Your task to perform on an android device: open the mobile data screen to see how much data has been used Image 0: 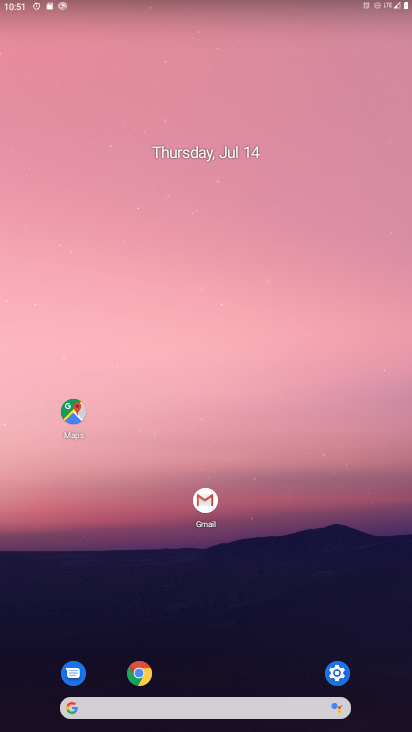
Step 0: click (344, 673)
Your task to perform on an android device: open the mobile data screen to see how much data has been used Image 1: 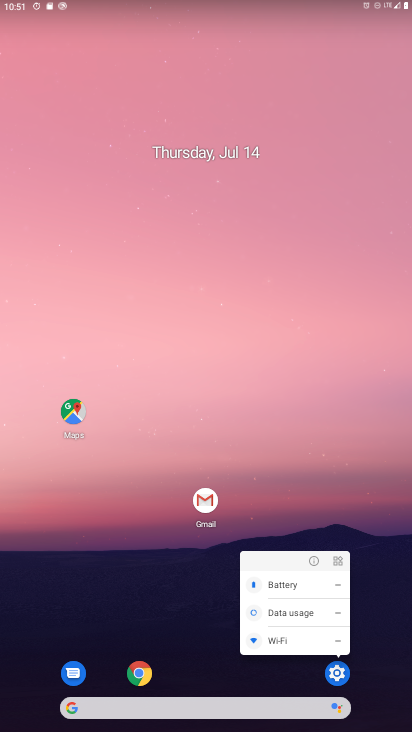
Step 1: click (339, 671)
Your task to perform on an android device: open the mobile data screen to see how much data has been used Image 2: 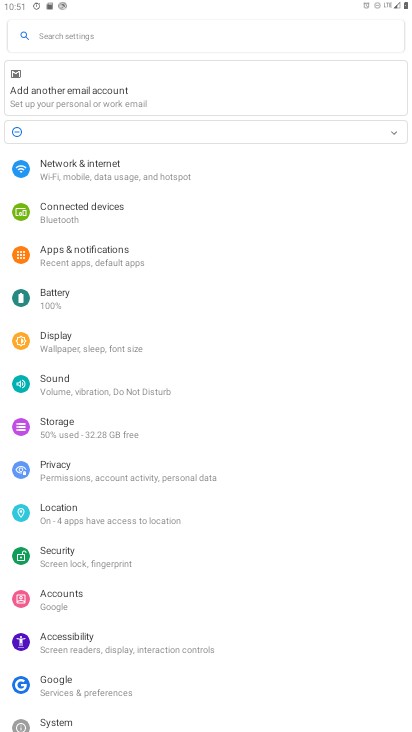
Step 2: click (109, 41)
Your task to perform on an android device: open the mobile data screen to see how much data has been used Image 3: 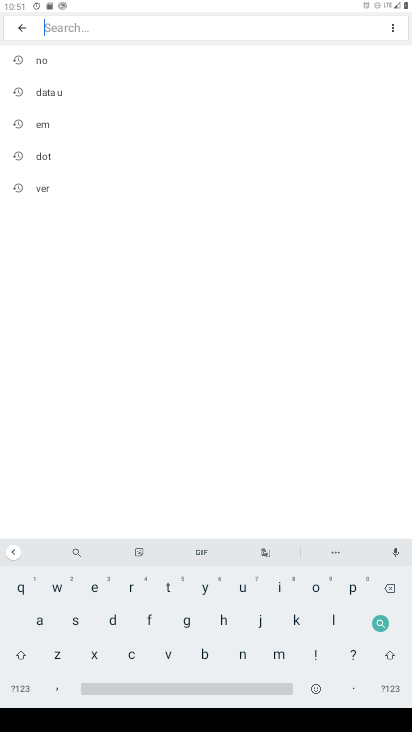
Step 3: click (64, 95)
Your task to perform on an android device: open the mobile data screen to see how much data has been used Image 4: 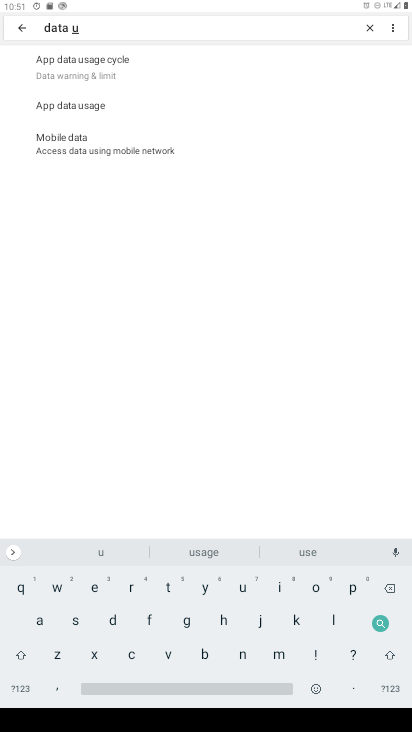
Step 4: click (92, 78)
Your task to perform on an android device: open the mobile data screen to see how much data has been used Image 5: 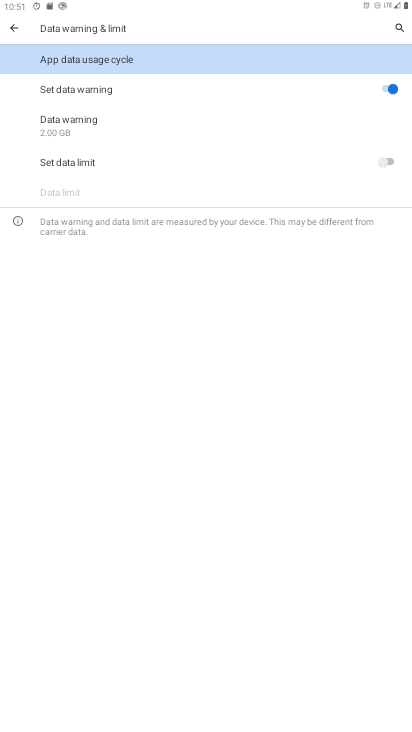
Step 5: click (104, 61)
Your task to perform on an android device: open the mobile data screen to see how much data has been used Image 6: 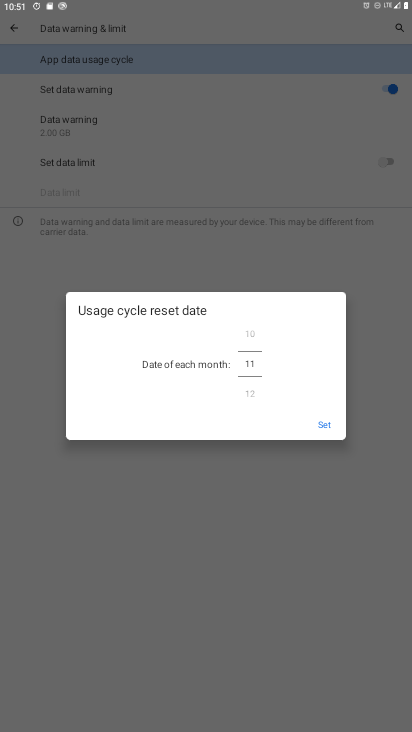
Step 6: press back button
Your task to perform on an android device: open the mobile data screen to see how much data has been used Image 7: 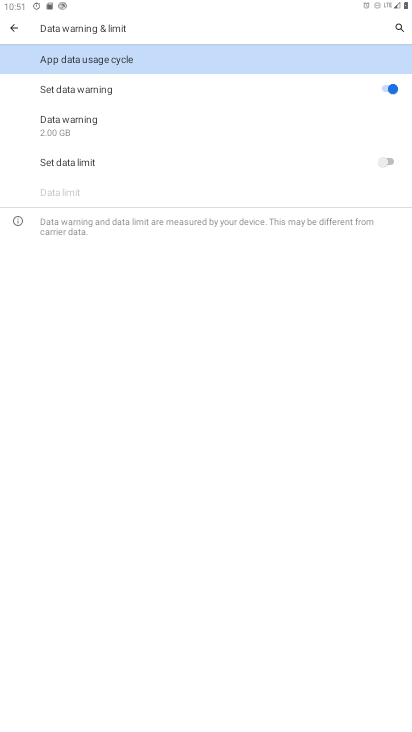
Step 7: press back button
Your task to perform on an android device: open the mobile data screen to see how much data has been used Image 8: 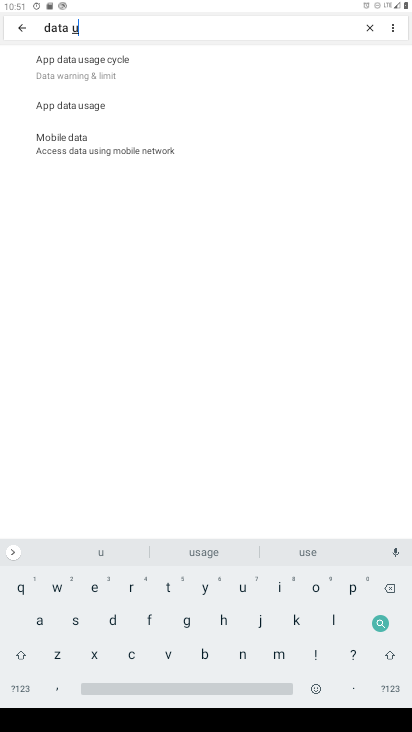
Step 8: click (93, 111)
Your task to perform on an android device: open the mobile data screen to see how much data has been used Image 9: 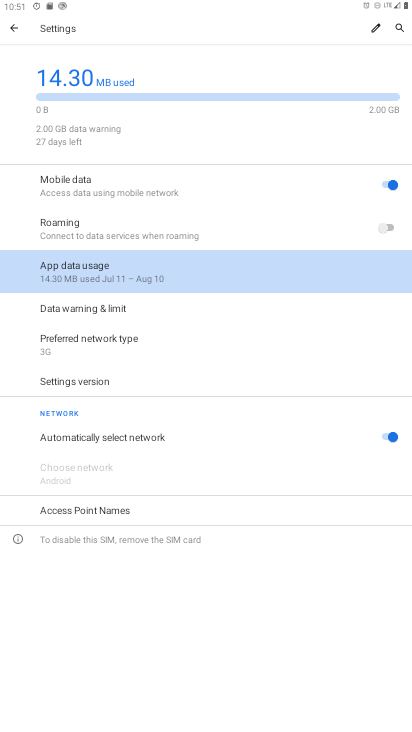
Step 9: click (115, 271)
Your task to perform on an android device: open the mobile data screen to see how much data has been used Image 10: 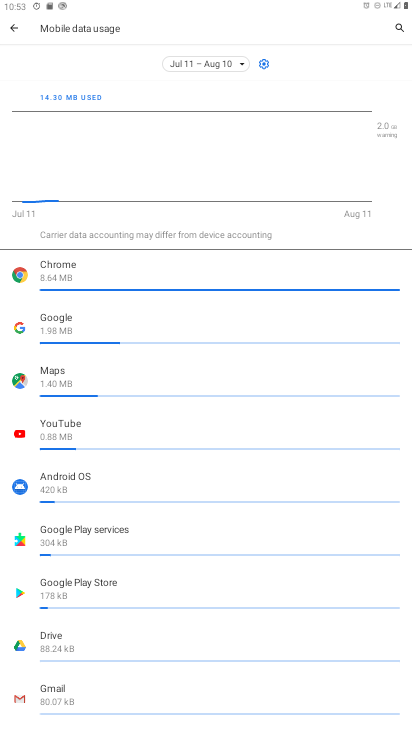
Step 10: task complete